Your task to perform on an android device: Open Google Chrome Image 0: 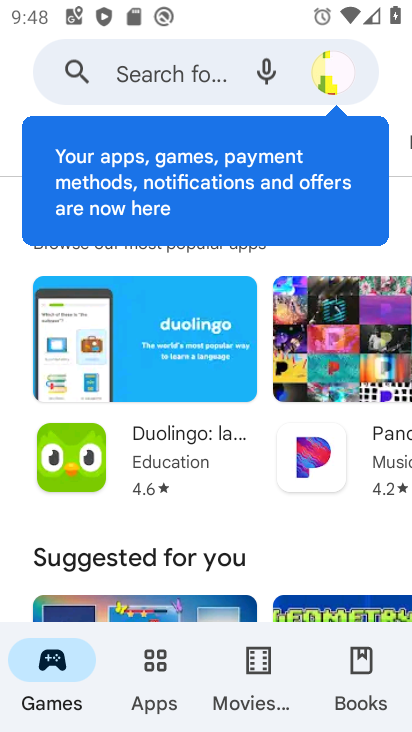
Step 0: press home button
Your task to perform on an android device: Open Google Chrome Image 1: 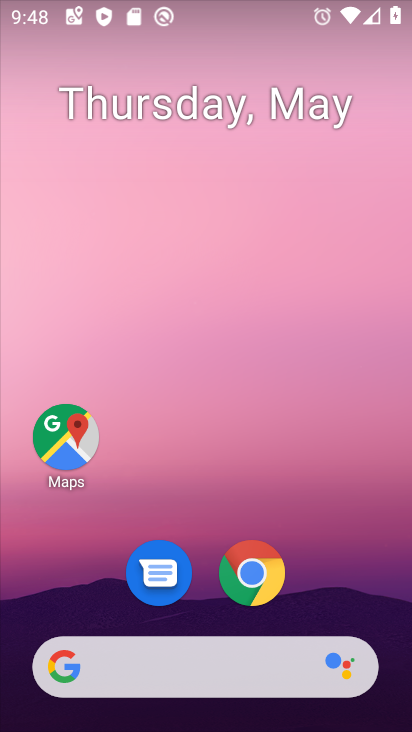
Step 1: click (271, 569)
Your task to perform on an android device: Open Google Chrome Image 2: 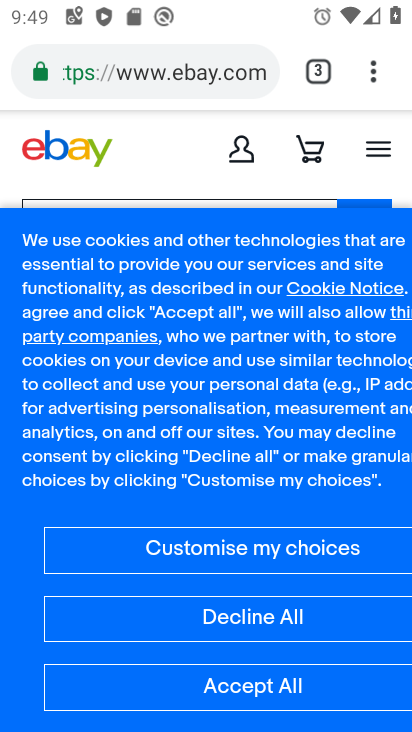
Step 2: task complete